Your task to perform on an android device: Go to internet settings Image 0: 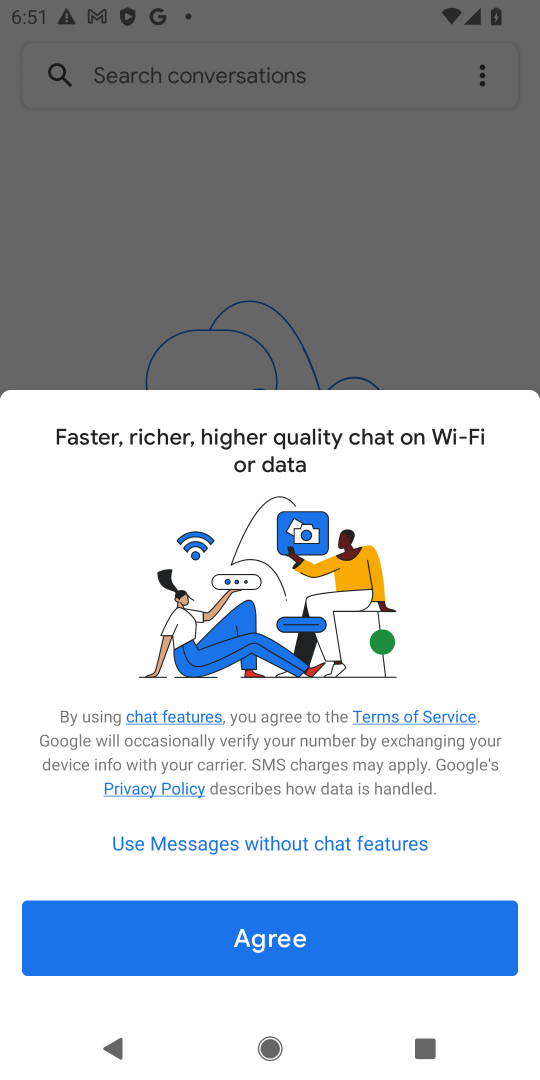
Step 0: press back button
Your task to perform on an android device: Go to internet settings Image 1: 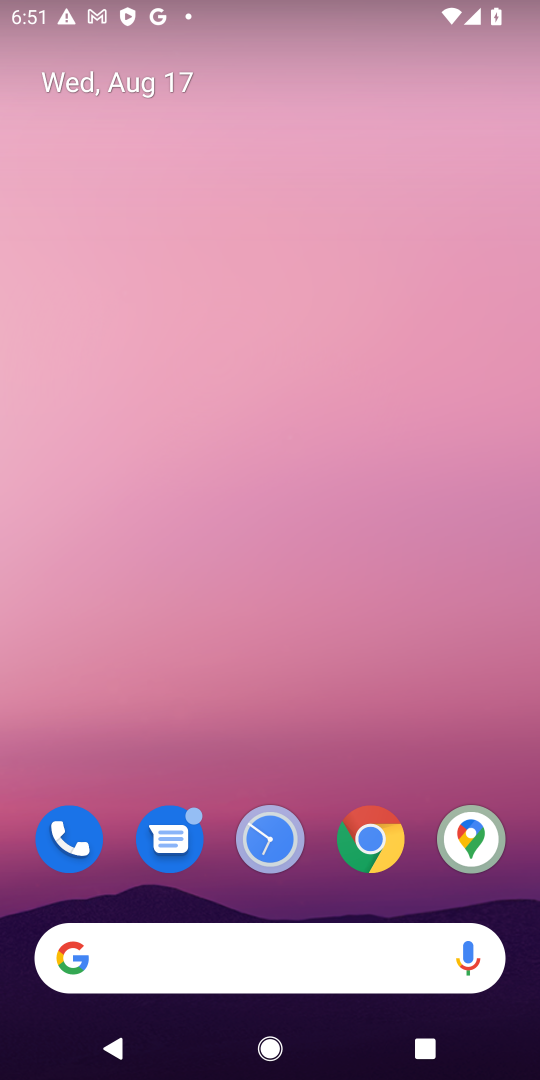
Step 1: drag from (217, 897) to (312, 26)
Your task to perform on an android device: Go to internet settings Image 2: 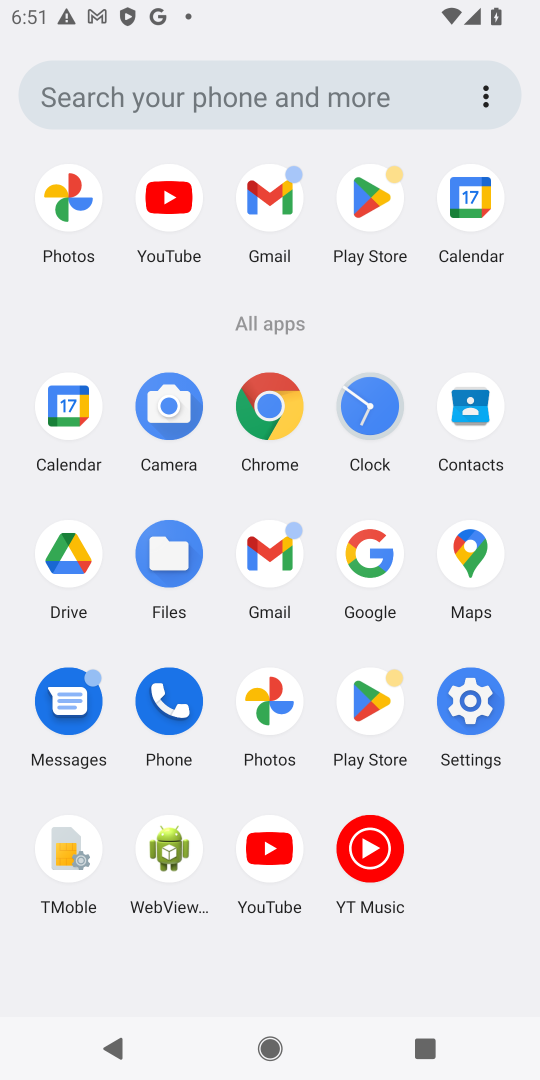
Step 2: click (493, 696)
Your task to perform on an android device: Go to internet settings Image 3: 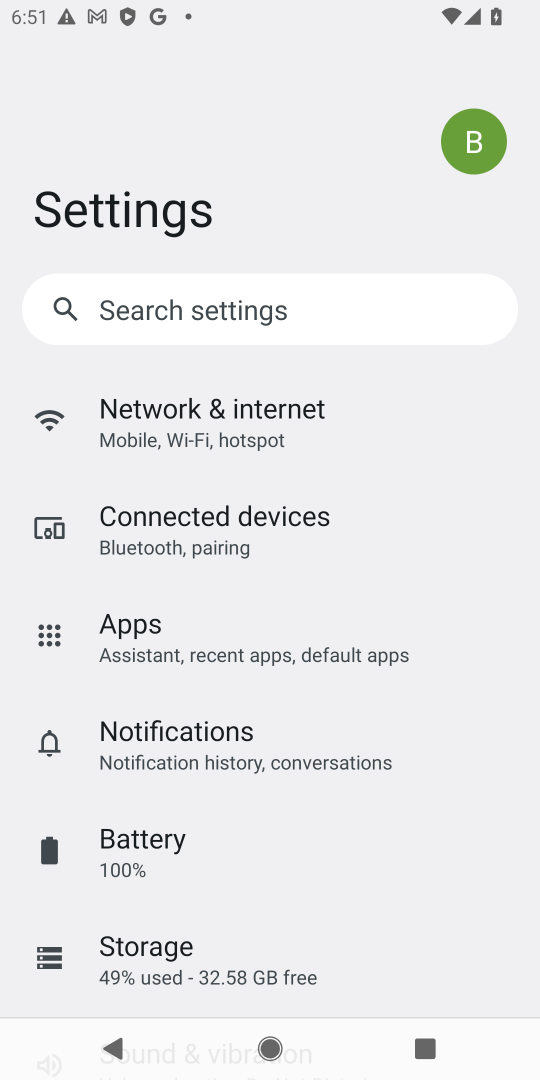
Step 3: click (260, 432)
Your task to perform on an android device: Go to internet settings Image 4: 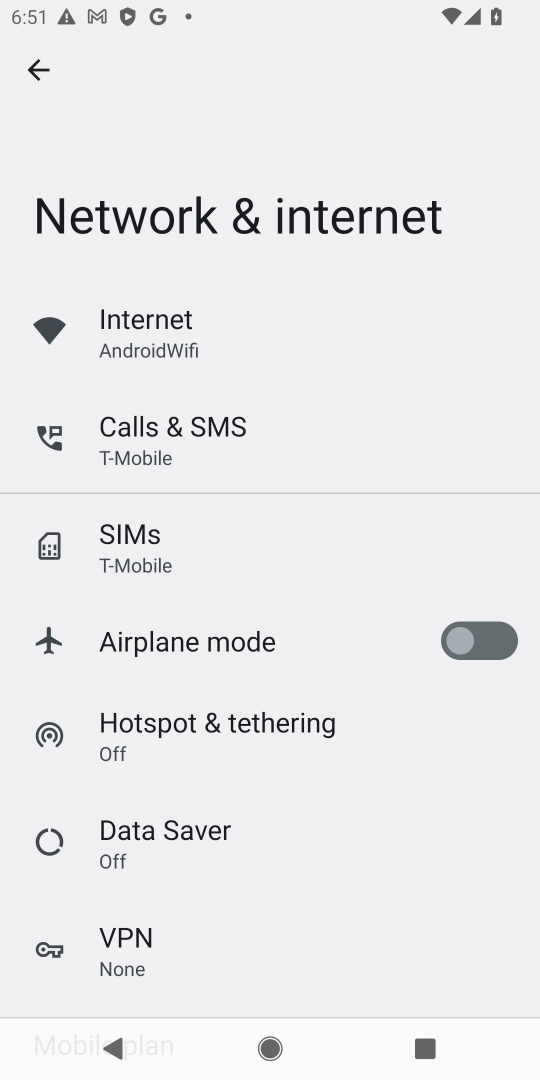
Step 4: click (148, 346)
Your task to perform on an android device: Go to internet settings Image 5: 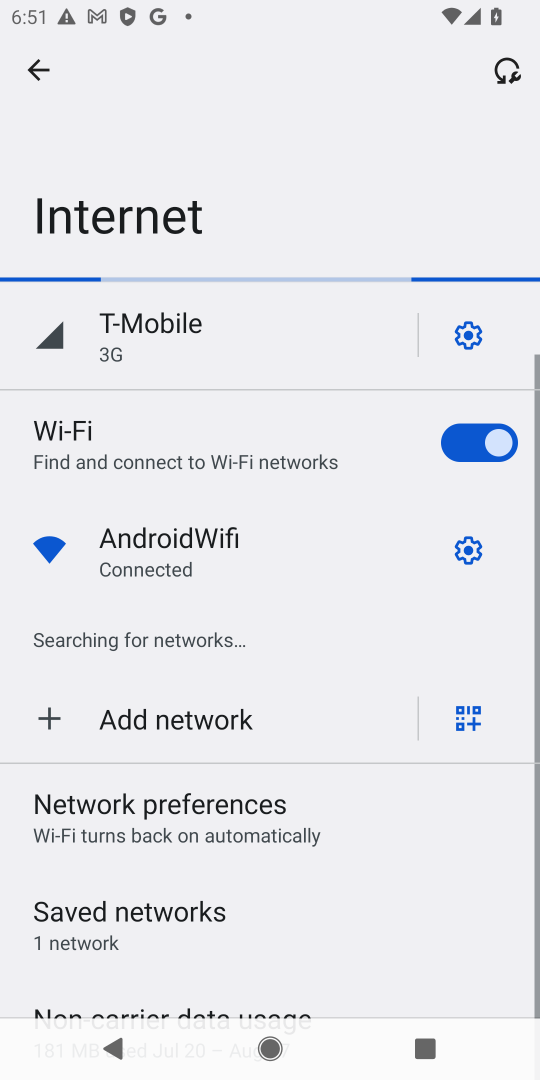
Step 5: task complete